Your task to perform on an android device: star an email in the gmail app Image 0: 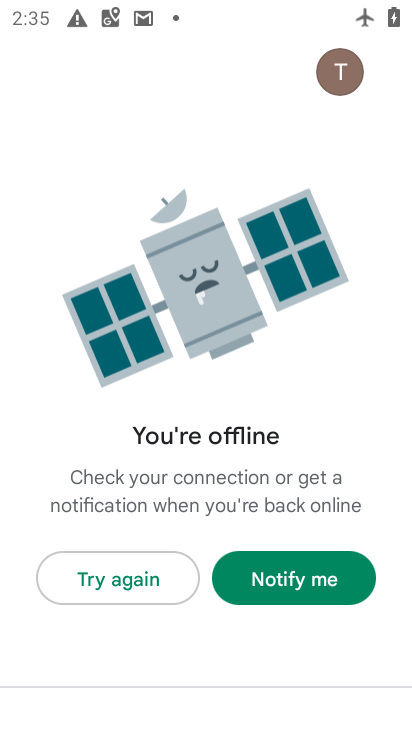
Step 0: press home button
Your task to perform on an android device: star an email in the gmail app Image 1: 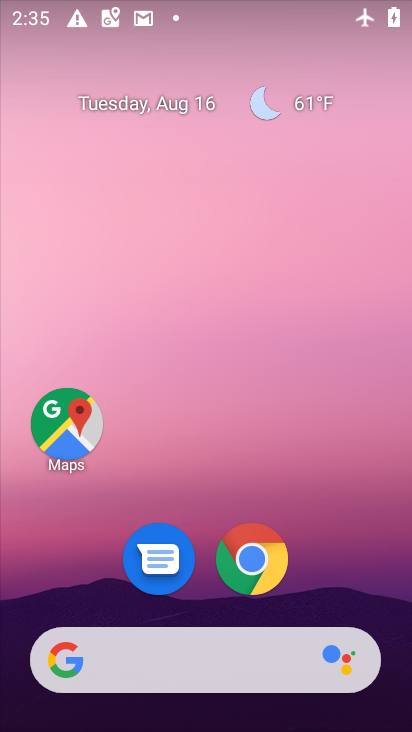
Step 1: drag from (372, 573) to (339, 87)
Your task to perform on an android device: star an email in the gmail app Image 2: 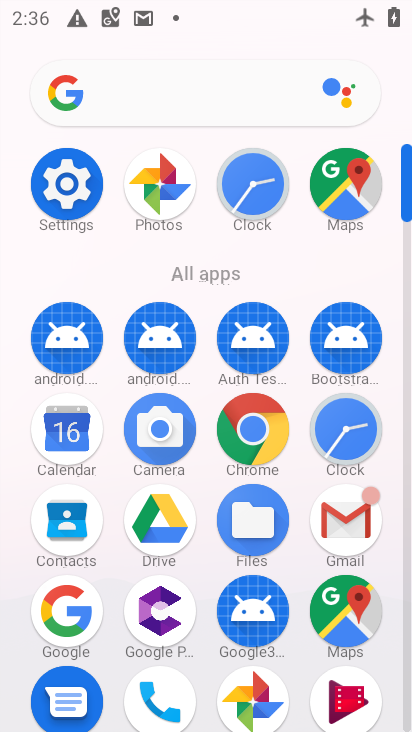
Step 2: click (408, 690)
Your task to perform on an android device: star an email in the gmail app Image 3: 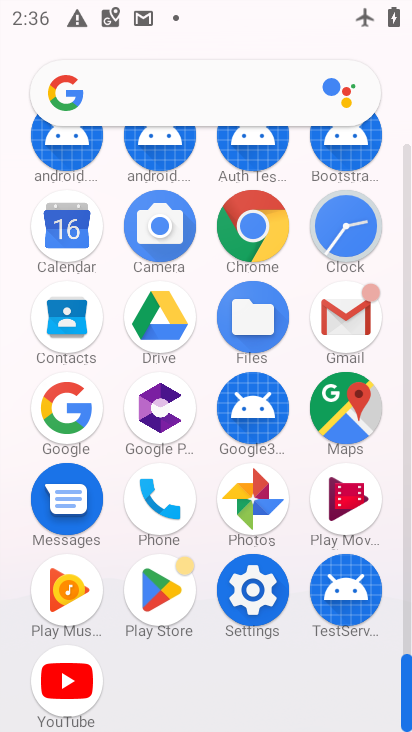
Step 3: click (344, 312)
Your task to perform on an android device: star an email in the gmail app Image 4: 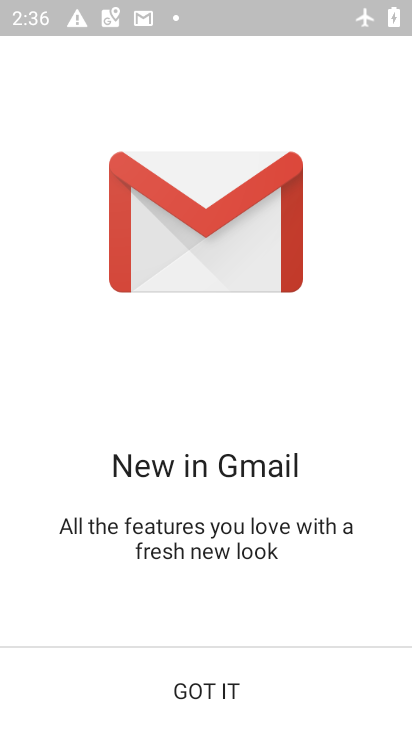
Step 4: click (209, 690)
Your task to perform on an android device: star an email in the gmail app Image 5: 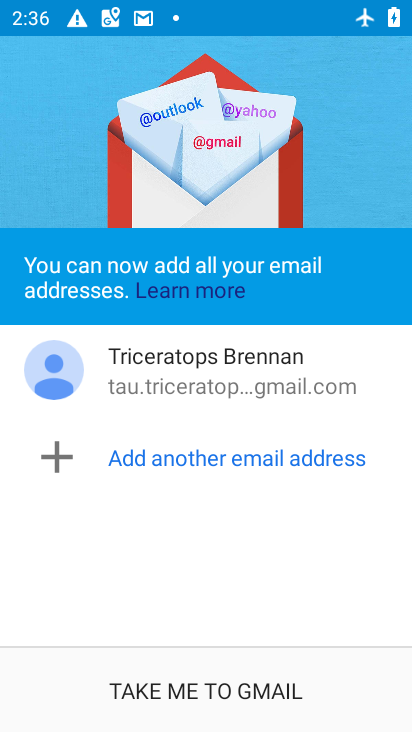
Step 5: click (209, 690)
Your task to perform on an android device: star an email in the gmail app Image 6: 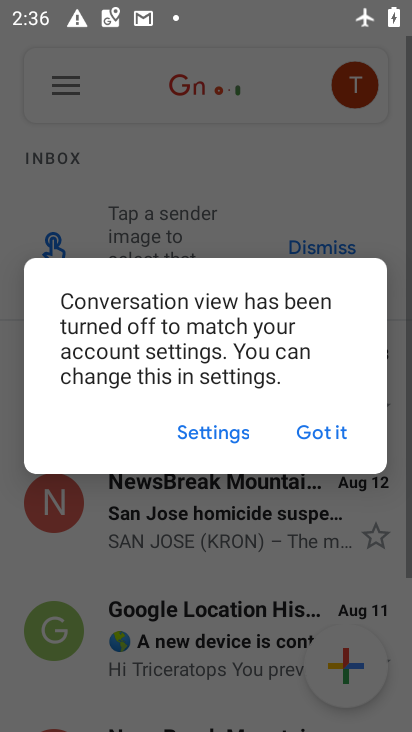
Step 6: click (325, 434)
Your task to perform on an android device: star an email in the gmail app Image 7: 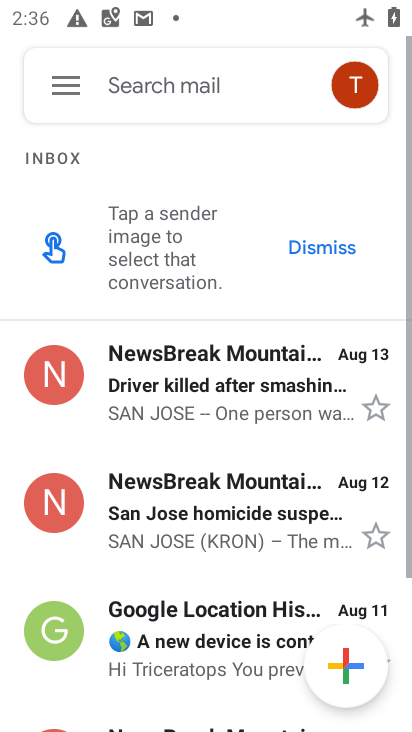
Step 7: click (376, 412)
Your task to perform on an android device: star an email in the gmail app Image 8: 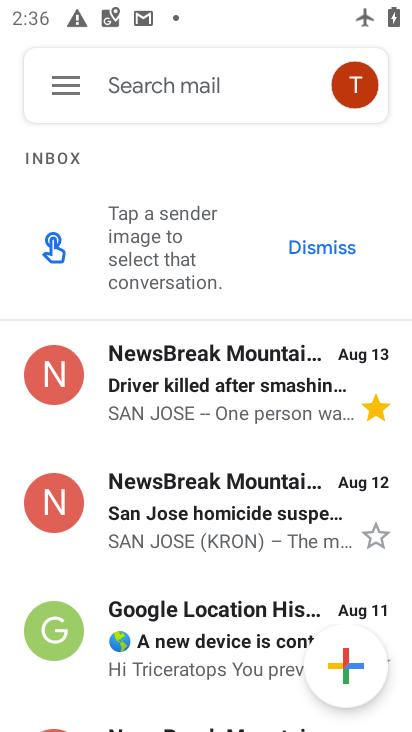
Step 8: task complete